Your task to perform on an android device: Open Google Maps and go to "Timeline" Image 0: 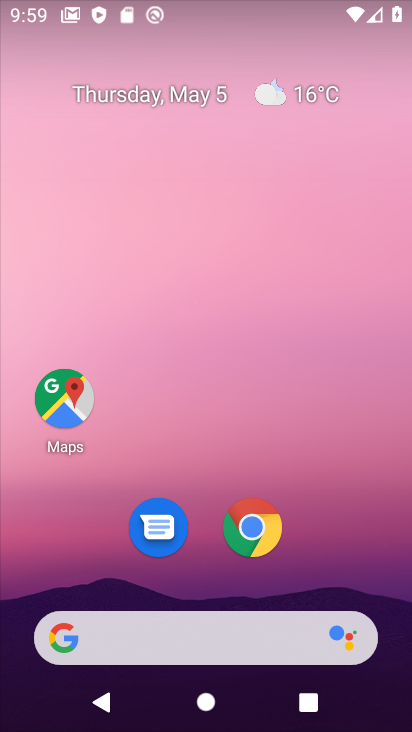
Step 0: click (55, 394)
Your task to perform on an android device: Open Google Maps and go to "Timeline" Image 1: 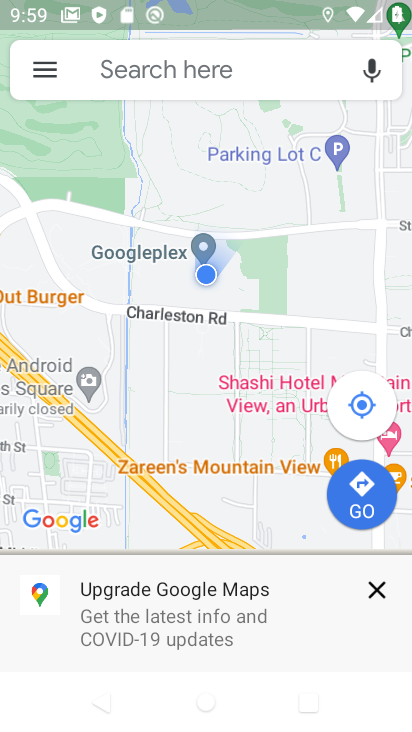
Step 1: click (368, 595)
Your task to perform on an android device: Open Google Maps and go to "Timeline" Image 2: 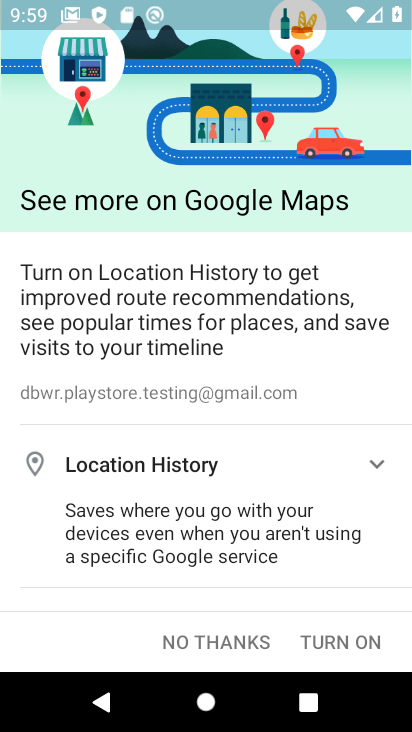
Step 2: click (209, 643)
Your task to perform on an android device: Open Google Maps and go to "Timeline" Image 3: 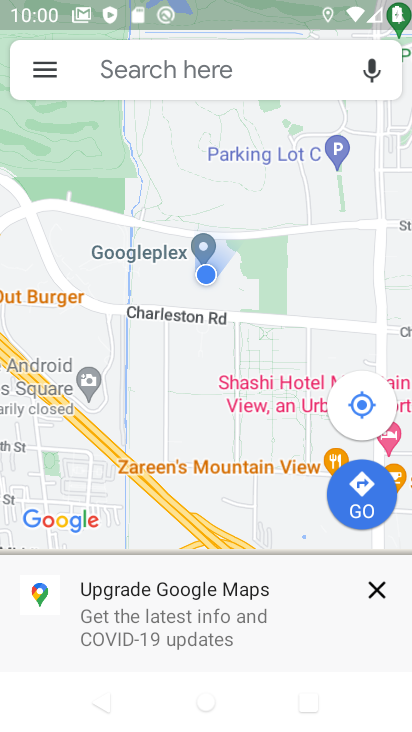
Step 3: click (26, 67)
Your task to perform on an android device: Open Google Maps and go to "Timeline" Image 4: 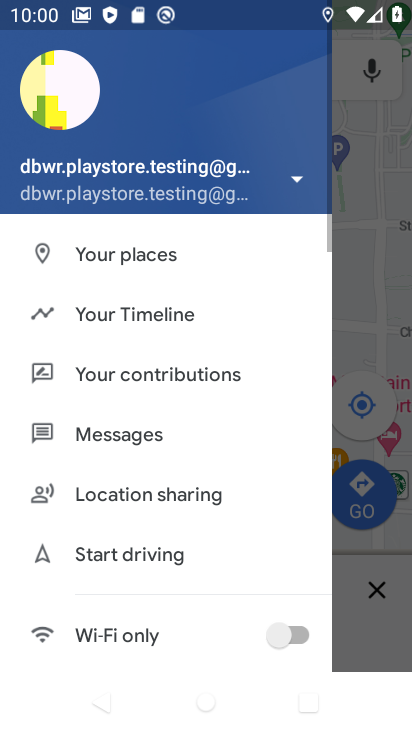
Step 4: click (119, 321)
Your task to perform on an android device: Open Google Maps and go to "Timeline" Image 5: 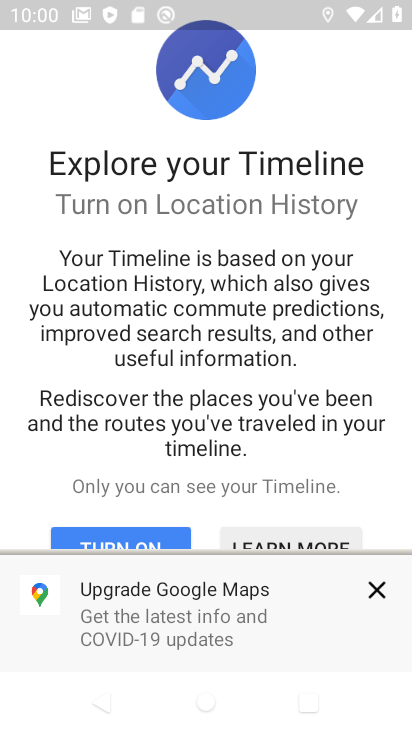
Step 5: click (378, 585)
Your task to perform on an android device: Open Google Maps and go to "Timeline" Image 6: 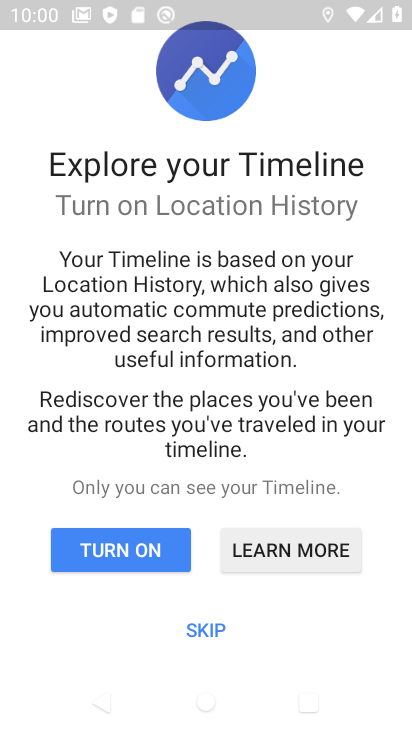
Step 6: click (197, 627)
Your task to perform on an android device: Open Google Maps and go to "Timeline" Image 7: 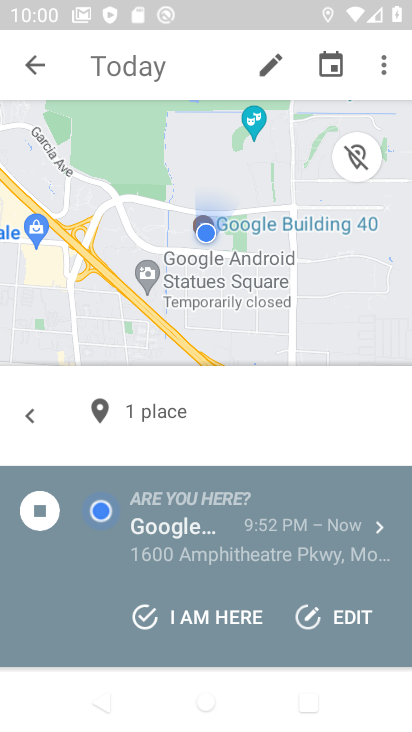
Step 7: task complete